Your task to perform on an android device: Open maps Image 0: 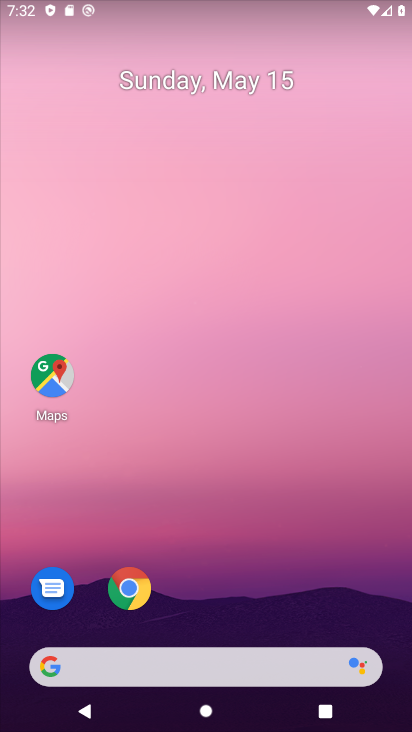
Step 0: press home button
Your task to perform on an android device: Open maps Image 1: 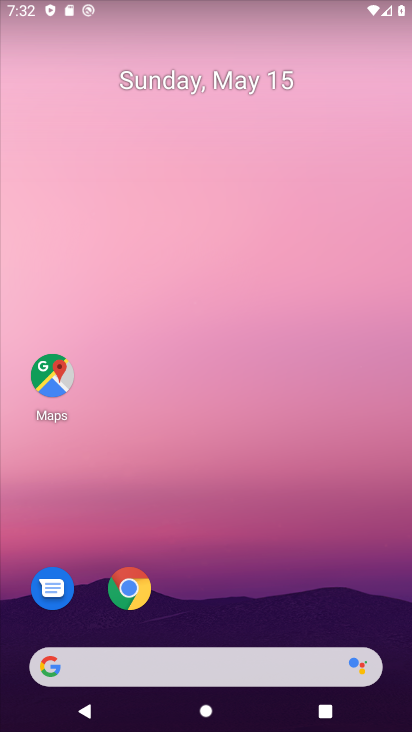
Step 1: click (47, 379)
Your task to perform on an android device: Open maps Image 2: 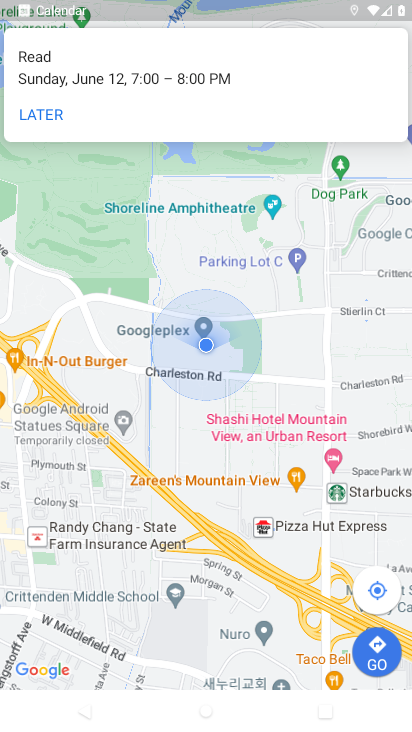
Step 2: click (26, 43)
Your task to perform on an android device: Open maps Image 3: 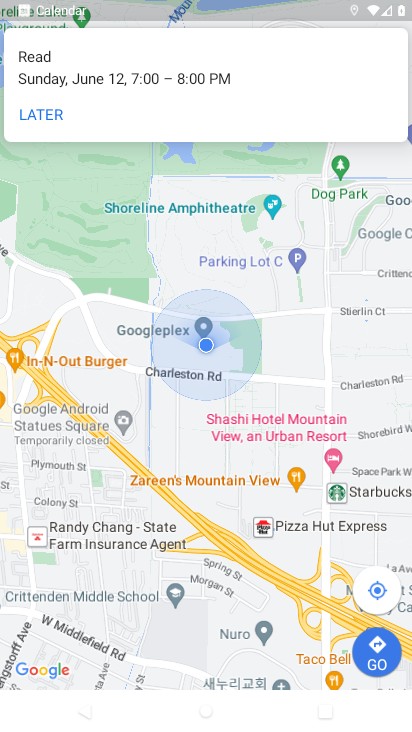
Step 3: click (39, 112)
Your task to perform on an android device: Open maps Image 4: 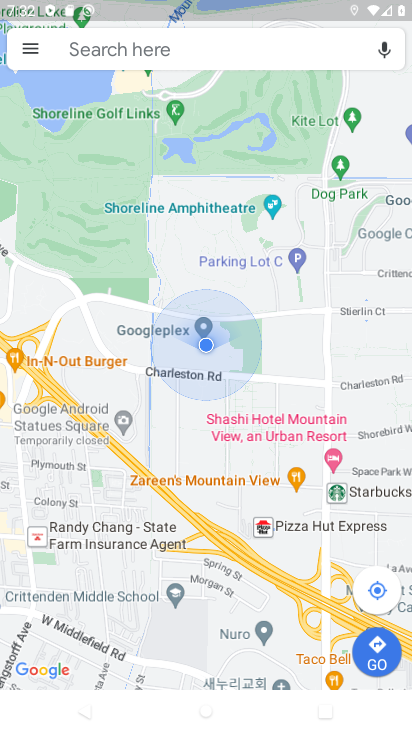
Step 4: click (31, 48)
Your task to perform on an android device: Open maps Image 5: 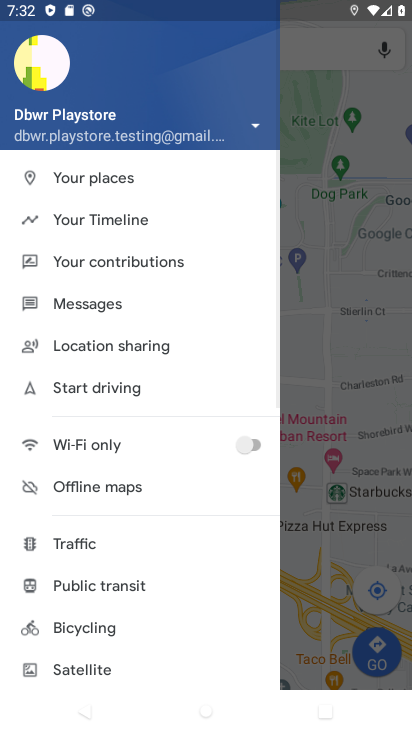
Step 5: drag from (100, 571) to (132, 101)
Your task to perform on an android device: Open maps Image 6: 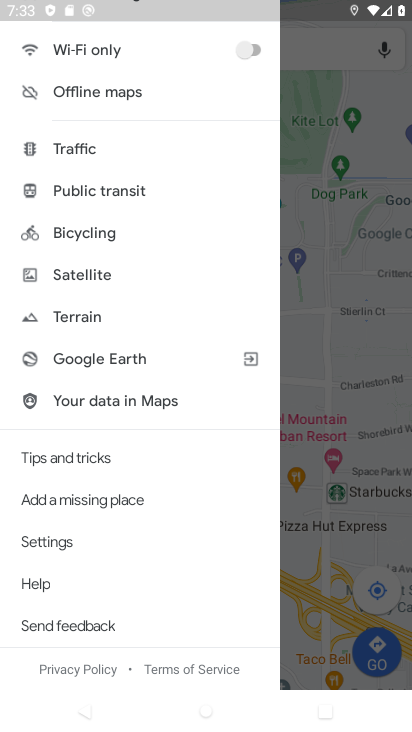
Step 6: drag from (105, 503) to (130, 194)
Your task to perform on an android device: Open maps Image 7: 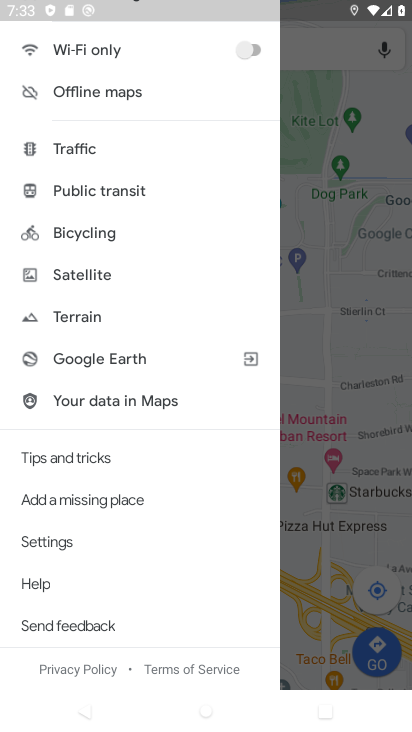
Step 7: click (304, 424)
Your task to perform on an android device: Open maps Image 8: 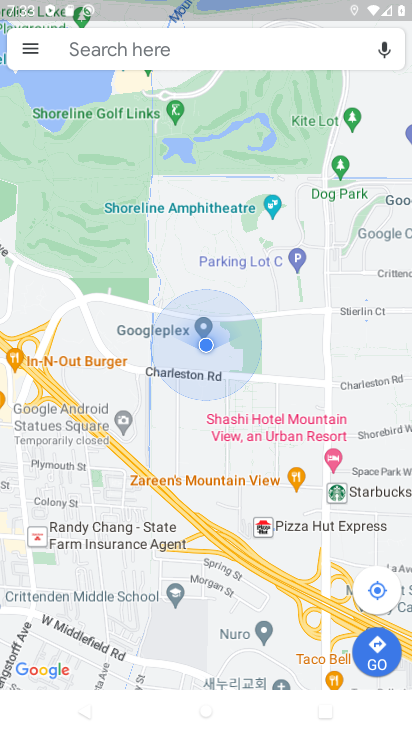
Step 8: click (371, 646)
Your task to perform on an android device: Open maps Image 9: 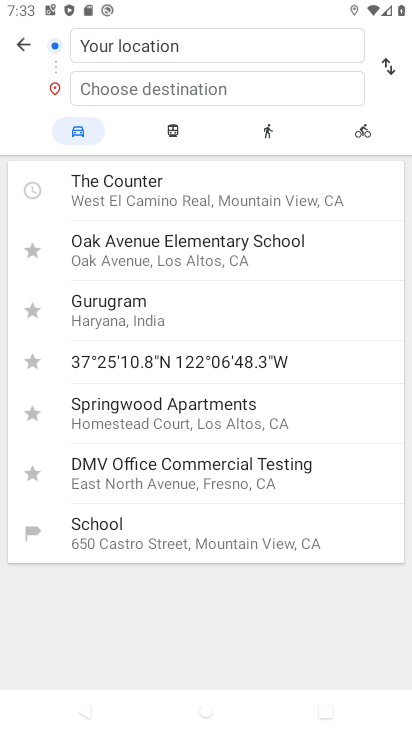
Step 9: task complete